Your task to perform on an android device: check google app version Image 0: 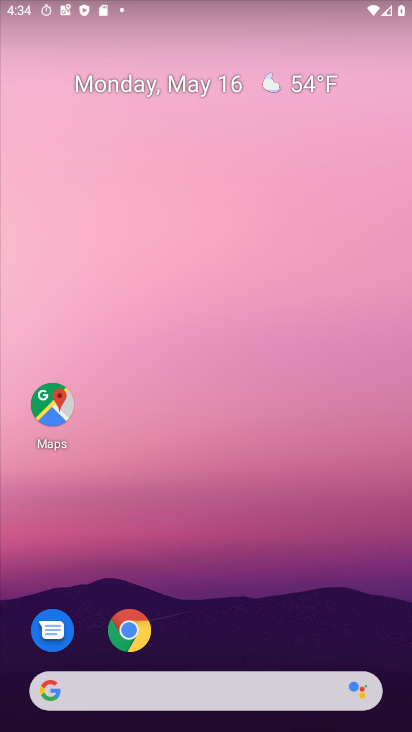
Step 0: click (132, 626)
Your task to perform on an android device: check google app version Image 1: 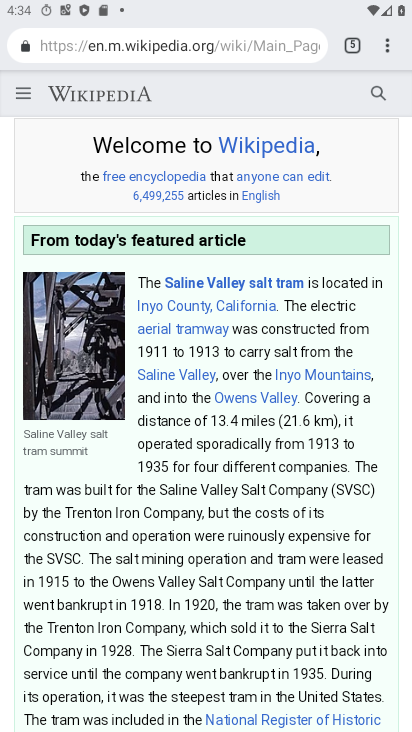
Step 1: click (379, 51)
Your task to perform on an android device: check google app version Image 2: 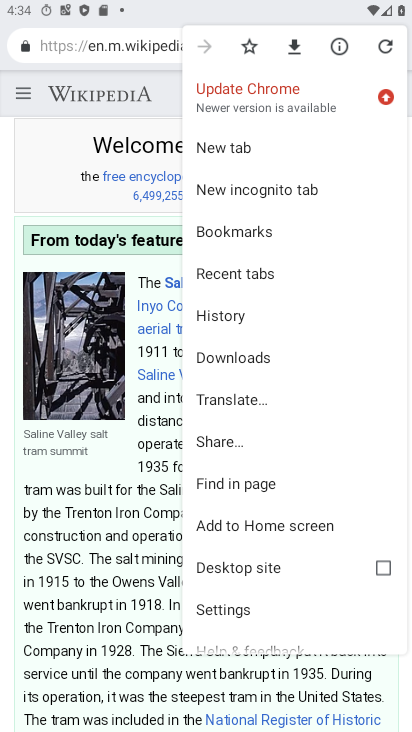
Step 2: drag from (310, 614) to (292, 206)
Your task to perform on an android device: check google app version Image 3: 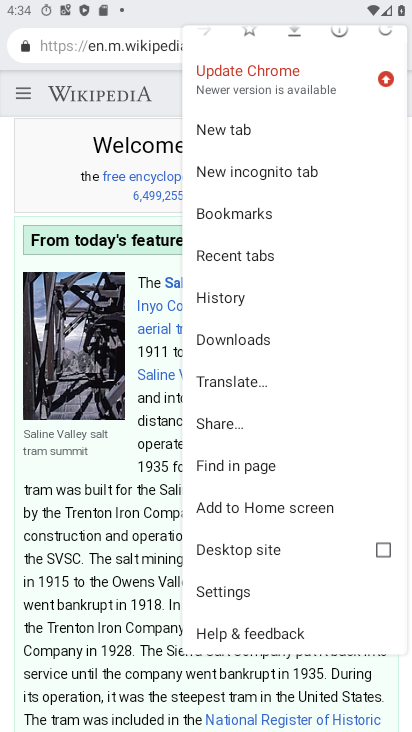
Step 3: click (307, 640)
Your task to perform on an android device: check google app version Image 4: 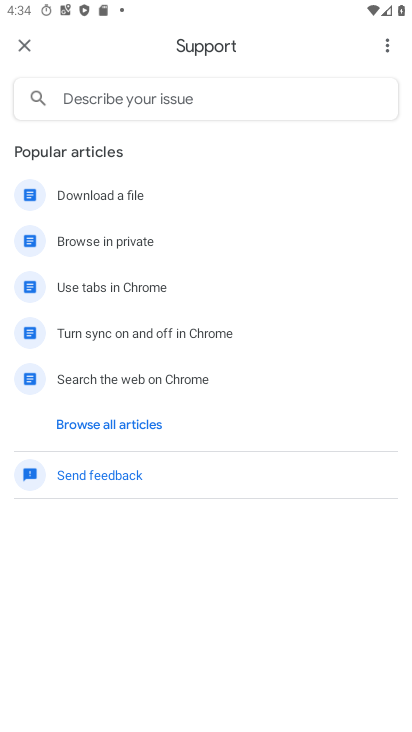
Step 4: click (392, 50)
Your task to perform on an android device: check google app version Image 5: 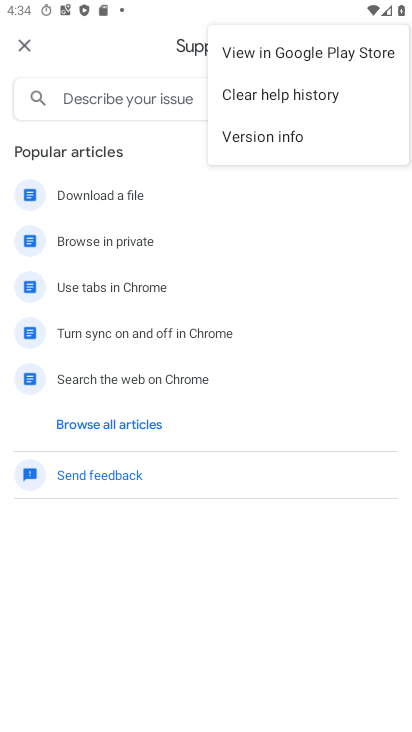
Step 5: click (365, 159)
Your task to perform on an android device: check google app version Image 6: 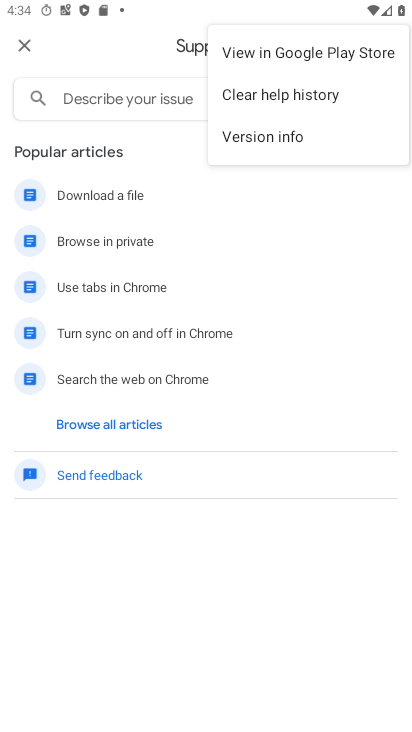
Step 6: click (355, 152)
Your task to perform on an android device: check google app version Image 7: 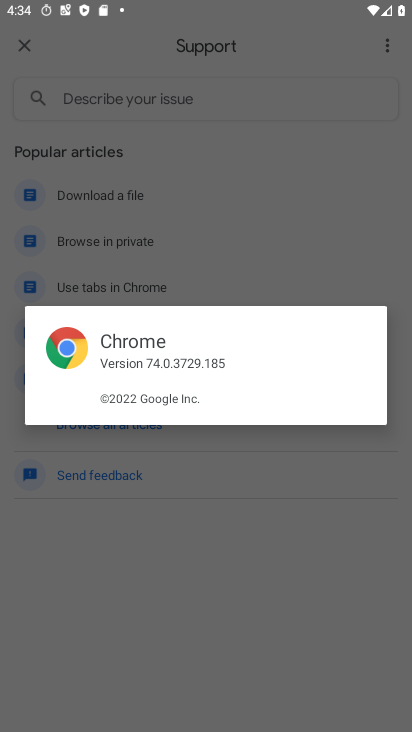
Step 7: task complete